Your task to perform on an android device: Open notification settings Image 0: 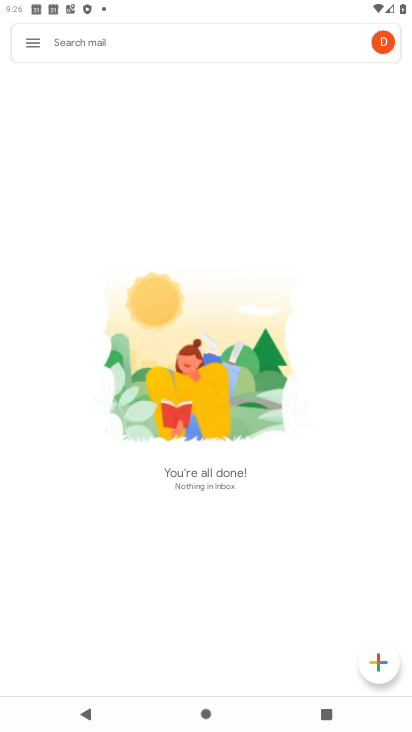
Step 0: press home button
Your task to perform on an android device: Open notification settings Image 1: 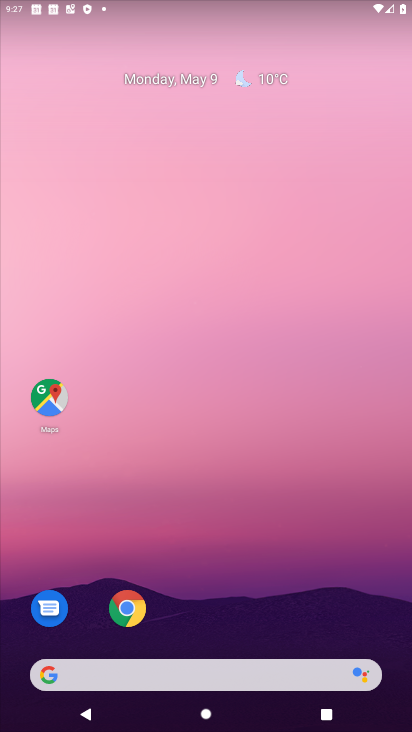
Step 1: drag from (289, 562) to (321, 114)
Your task to perform on an android device: Open notification settings Image 2: 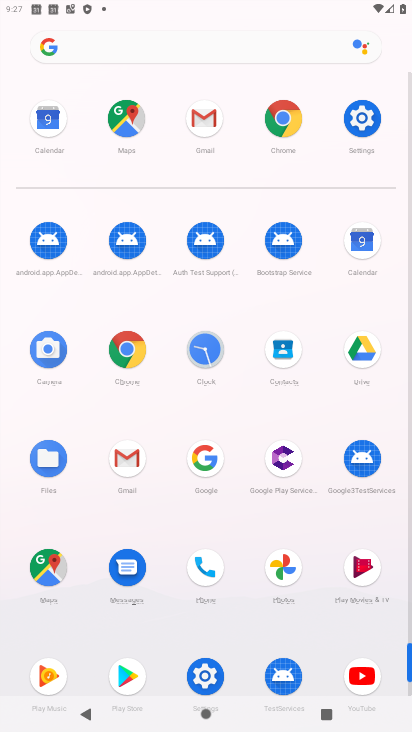
Step 2: click (358, 125)
Your task to perform on an android device: Open notification settings Image 3: 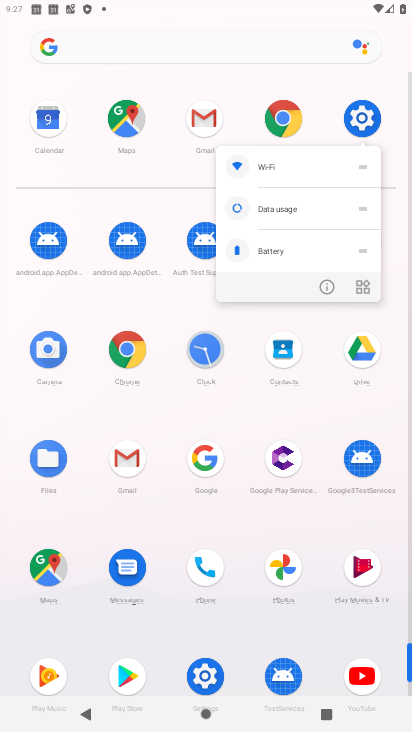
Step 3: click (358, 125)
Your task to perform on an android device: Open notification settings Image 4: 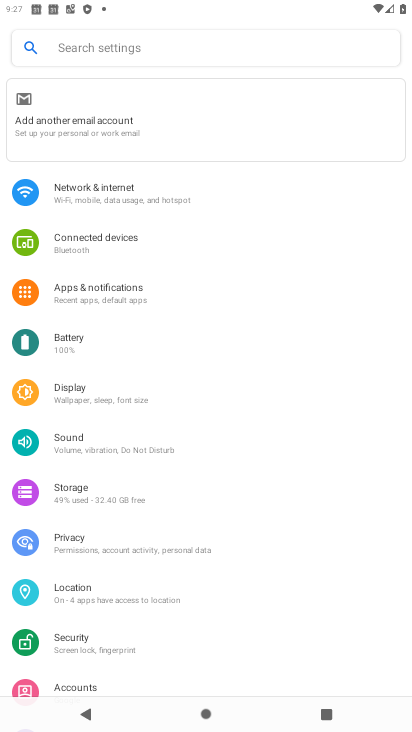
Step 4: click (119, 304)
Your task to perform on an android device: Open notification settings Image 5: 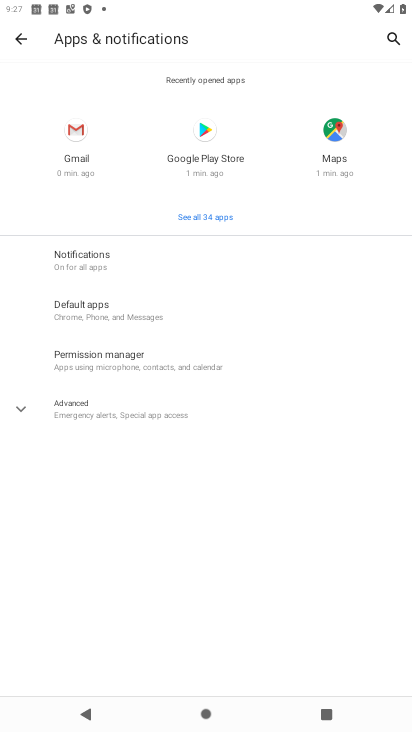
Step 5: click (82, 260)
Your task to perform on an android device: Open notification settings Image 6: 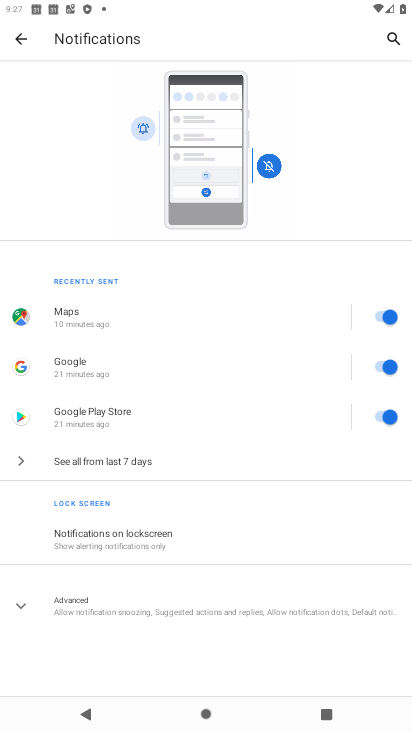
Step 6: task complete